Your task to perform on an android device: open app "The Home Depot" (install if not already installed) Image 0: 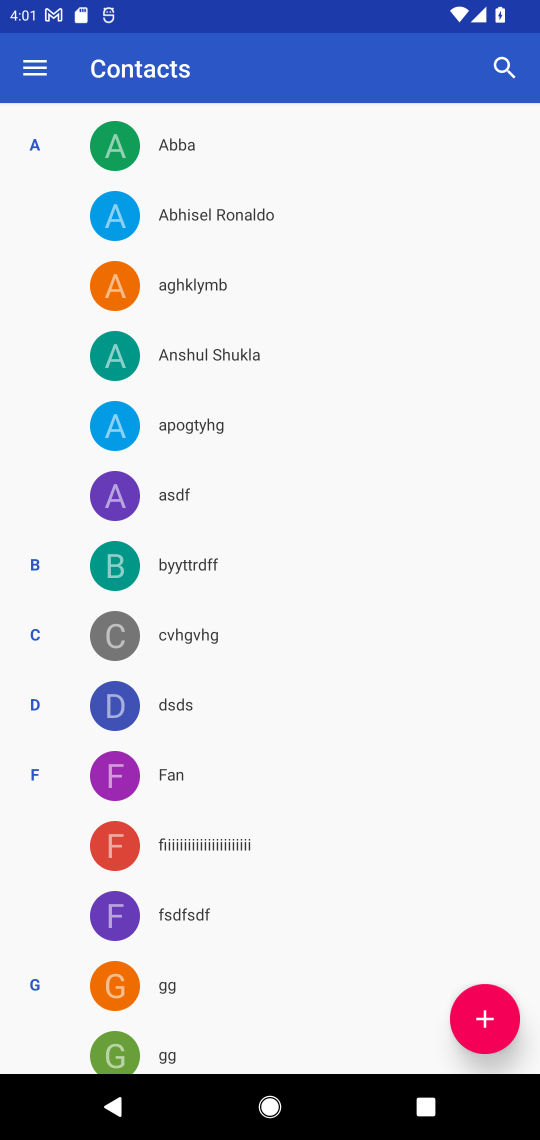
Step 0: press home button
Your task to perform on an android device: open app "The Home Depot" (install if not already installed) Image 1: 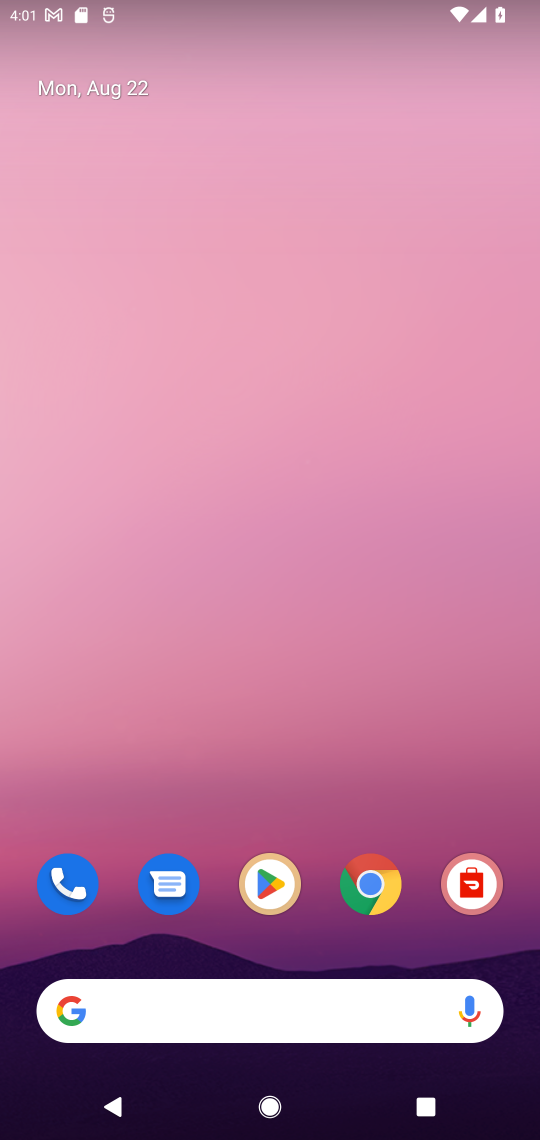
Step 1: click (269, 884)
Your task to perform on an android device: open app "The Home Depot" (install if not already installed) Image 2: 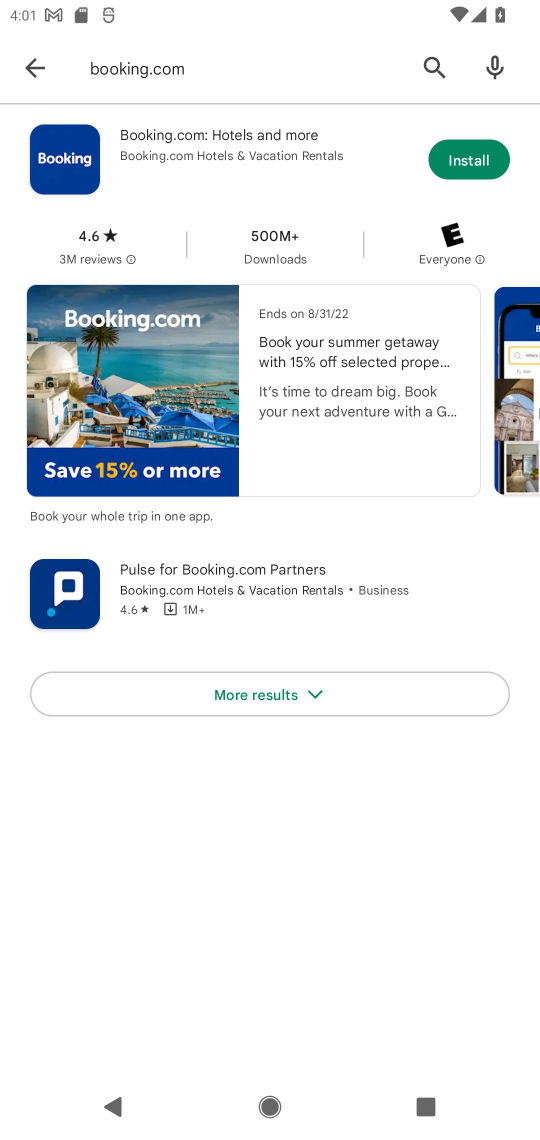
Step 2: click (217, 69)
Your task to perform on an android device: open app "The Home Depot" (install if not already installed) Image 3: 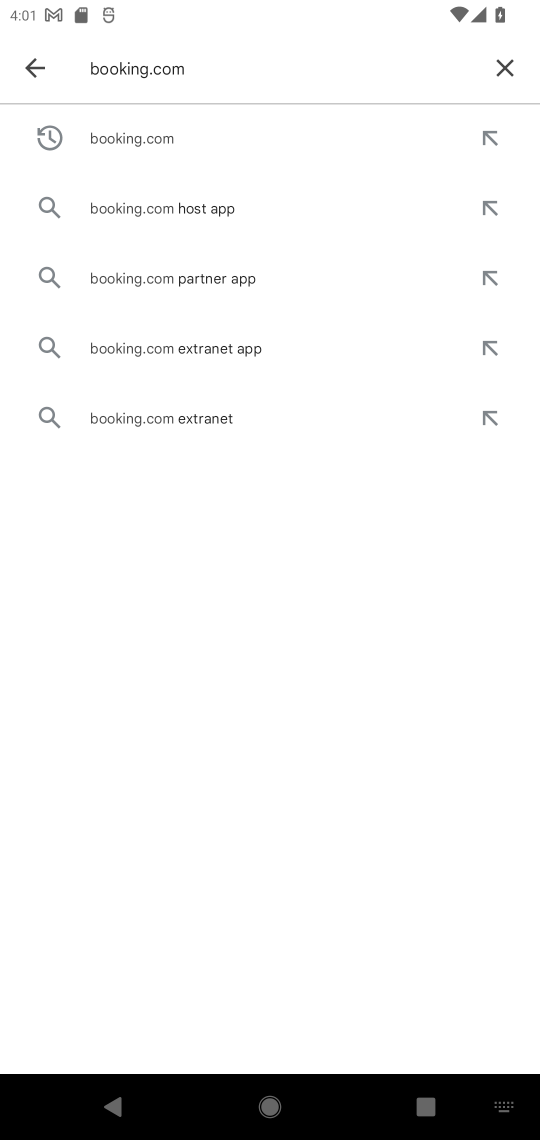
Step 3: click (504, 67)
Your task to perform on an android device: open app "The Home Depot" (install if not already installed) Image 4: 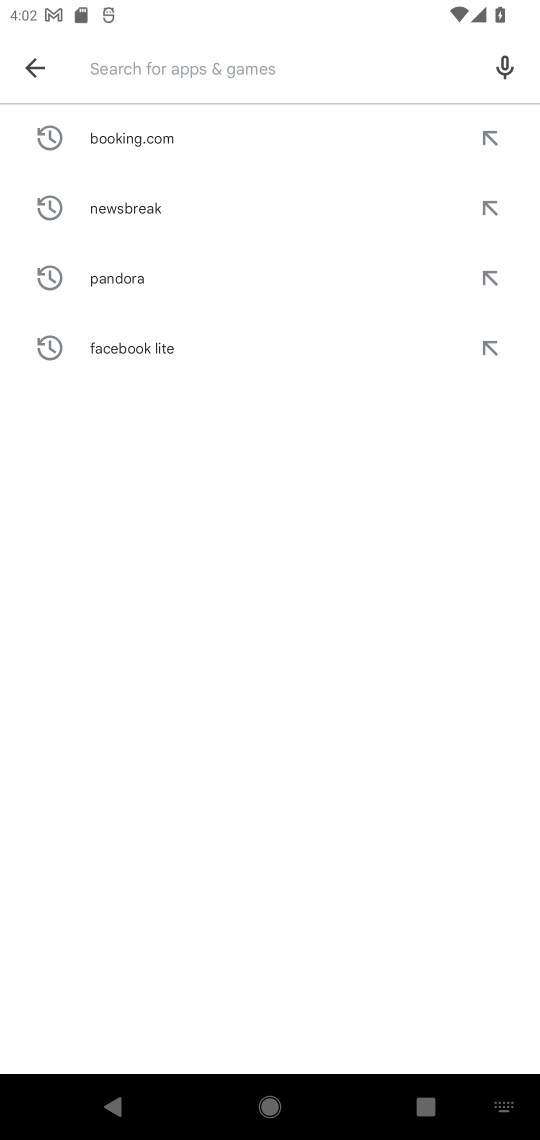
Step 4: type "the home depot"
Your task to perform on an android device: open app "The Home Depot" (install if not already installed) Image 5: 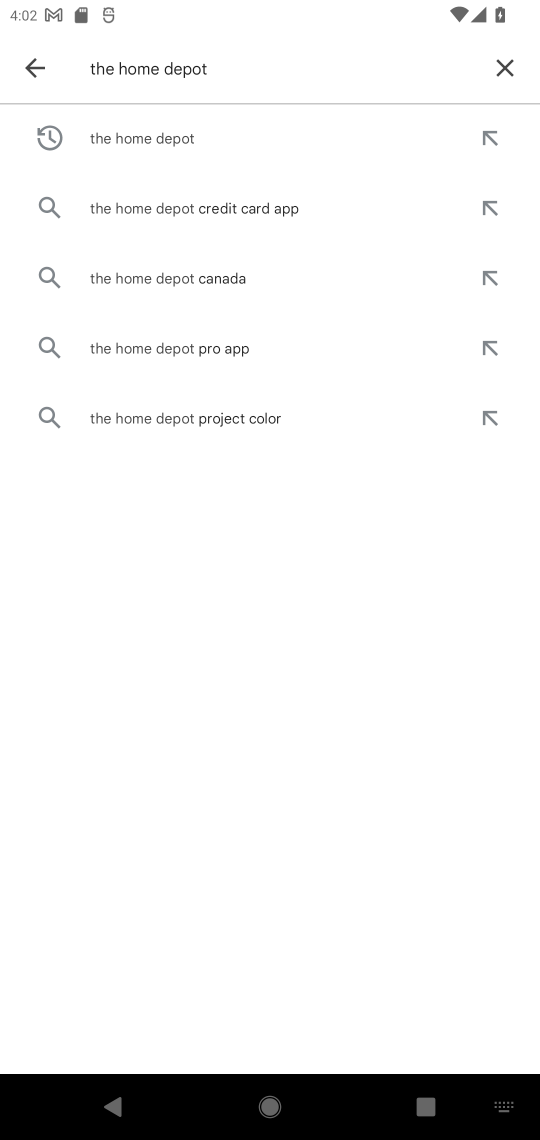
Step 5: click (198, 152)
Your task to perform on an android device: open app "The Home Depot" (install if not already installed) Image 6: 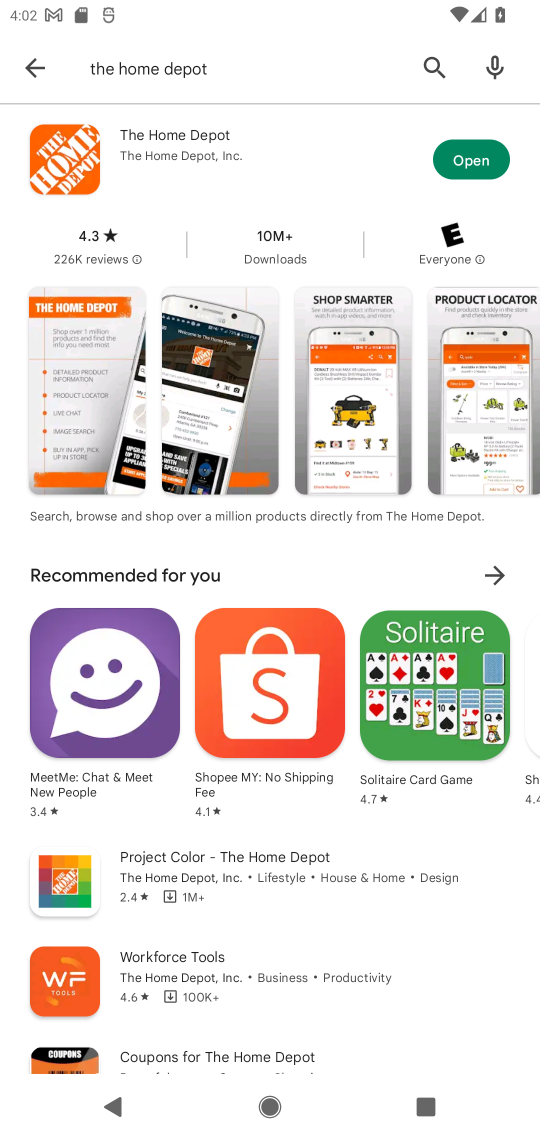
Step 6: click (484, 158)
Your task to perform on an android device: open app "The Home Depot" (install if not already installed) Image 7: 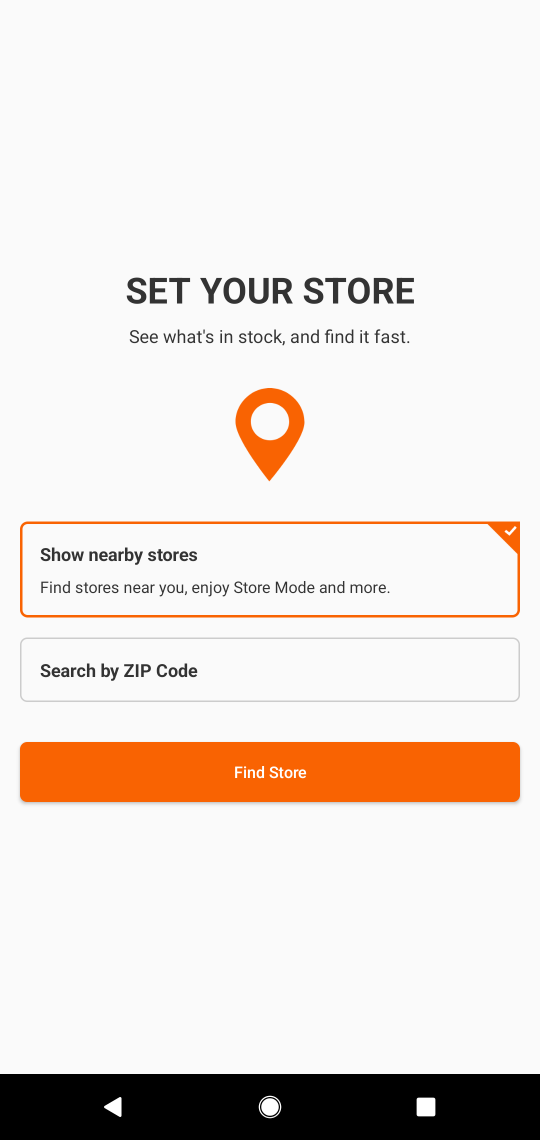
Step 7: click (379, 771)
Your task to perform on an android device: open app "The Home Depot" (install if not already installed) Image 8: 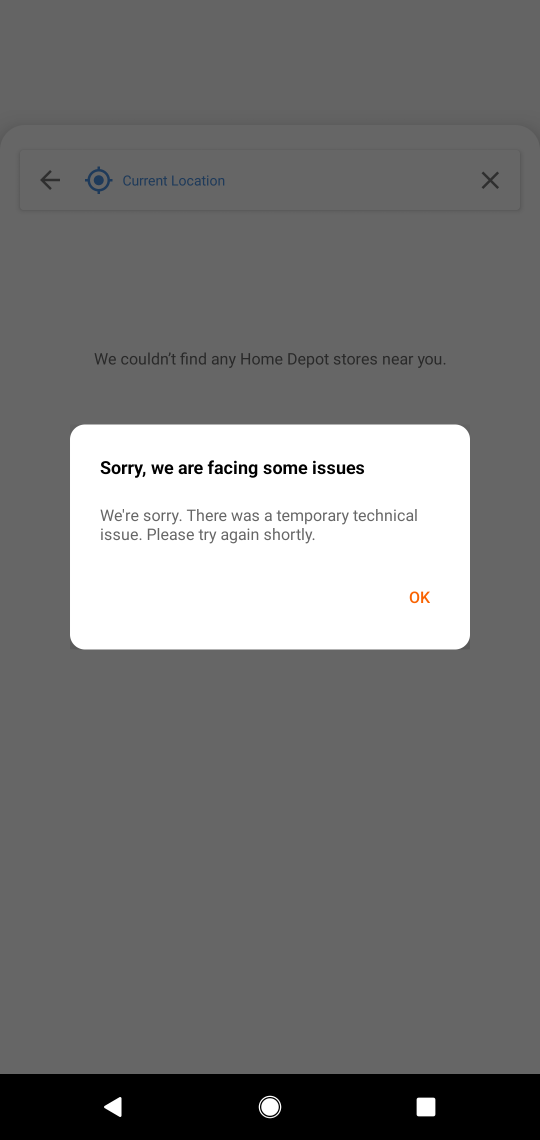
Step 8: click (416, 592)
Your task to perform on an android device: open app "The Home Depot" (install if not already installed) Image 9: 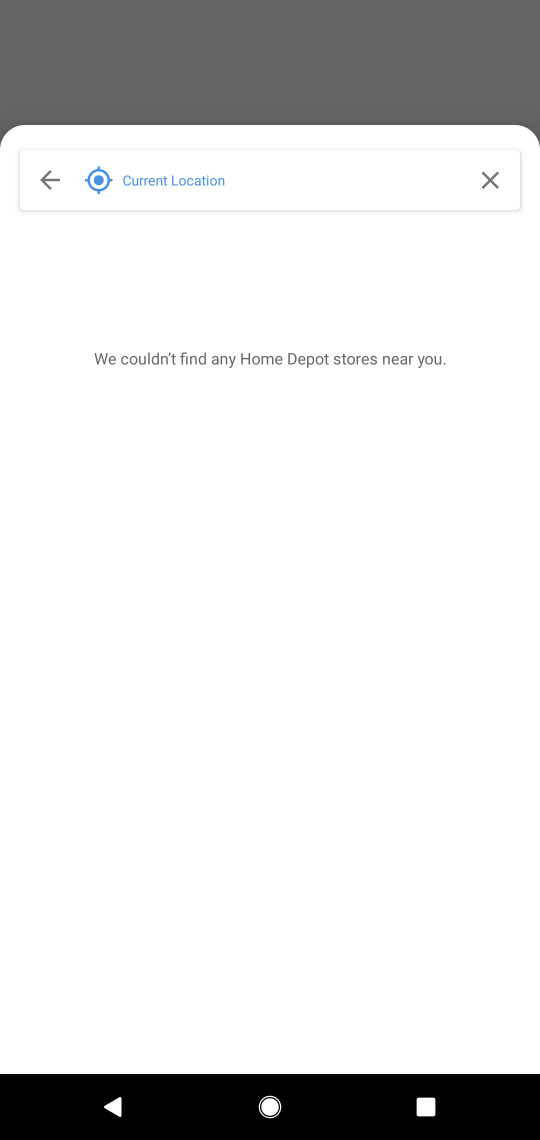
Step 9: click (43, 179)
Your task to perform on an android device: open app "The Home Depot" (install if not already installed) Image 10: 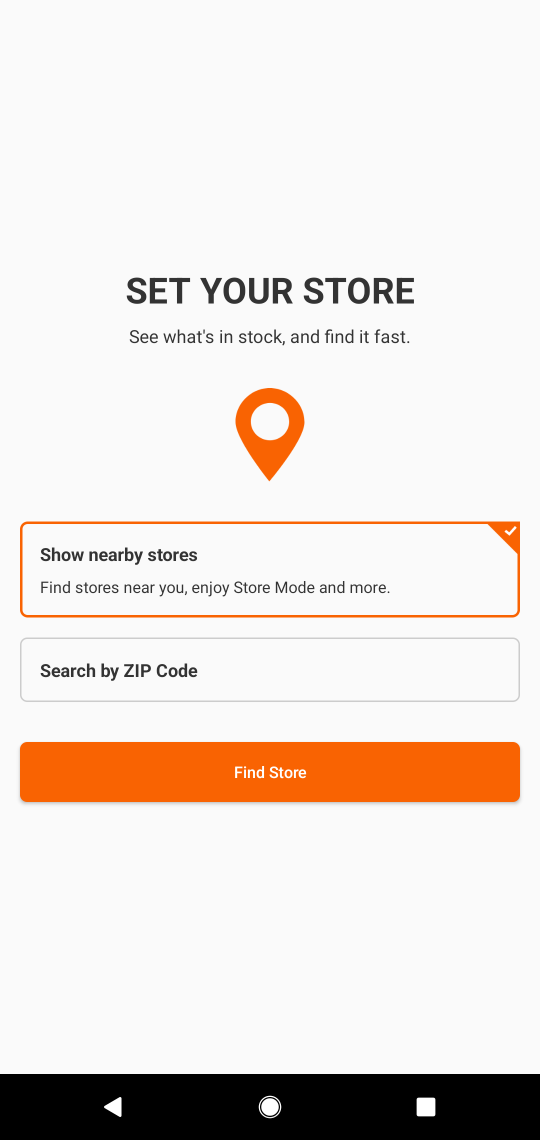
Step 10: task complete